Your task to perform on an android device: change keyboard looks Image 0: 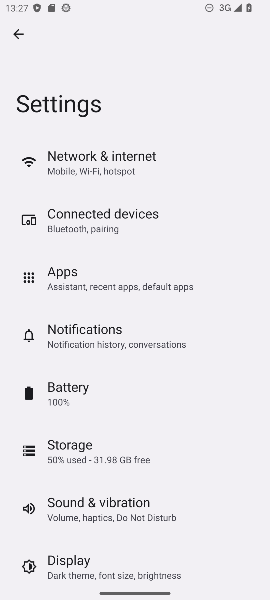
Step 0: press home button
Your task to perform on an android device: change keyboard looks Image 1: 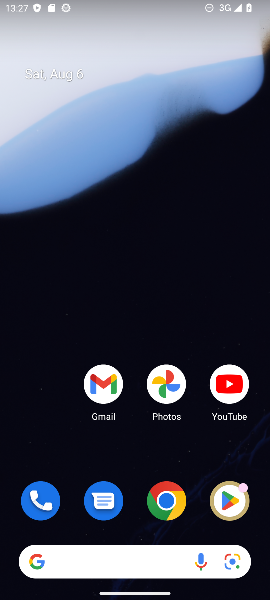
Step 1: drag from (126, 528) to (123, 86)
Your task to perform on an android device: change keyboard looks Image 2: 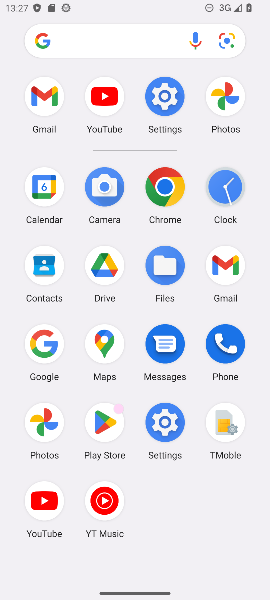
Step 2: click (172, 102)
Your task to perform on an android device: change keyboard looks Image 3: 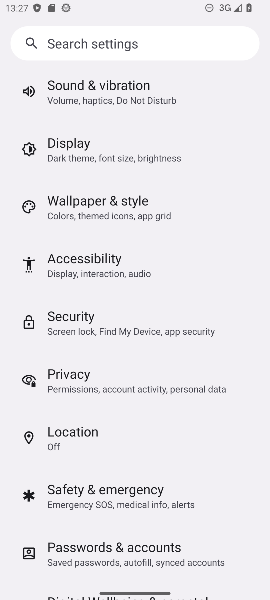
Step 3: drag from (103, 513) to (103, 172)
Your task to perform on an android device: change keyboard looks Image 4: 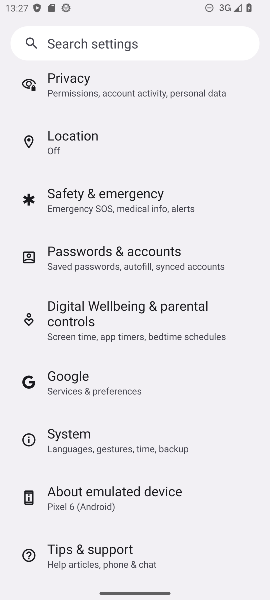
Step 4: click (81, 445)
Your task to perform on an android device: change keyboard looks Image 5: 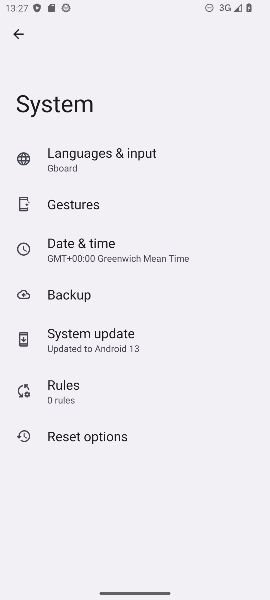
Step 5: click (67, 162)
Your task to perform on an android device: change keyboard looks Image 6: 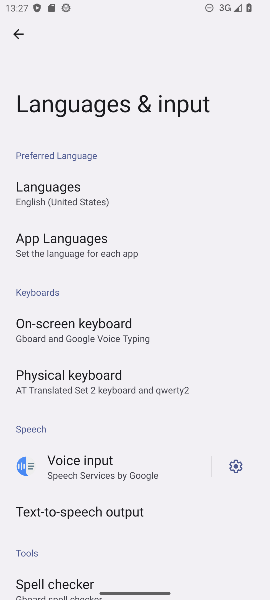
Step 6: click (71, 328)
Your task to perform on an android device: change keyboard looks Image 7: 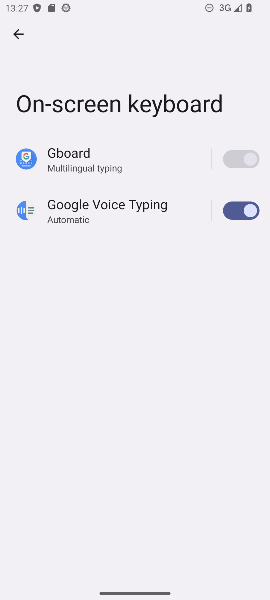
Step 7: click (94, 168)
Your task to perform on an android device: change keyboard looks Image 8: 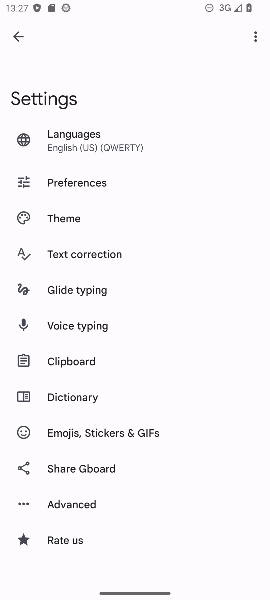
Step 8: click (72, 220)
Your task to perform on an android device: change keyboard looks Image 9: 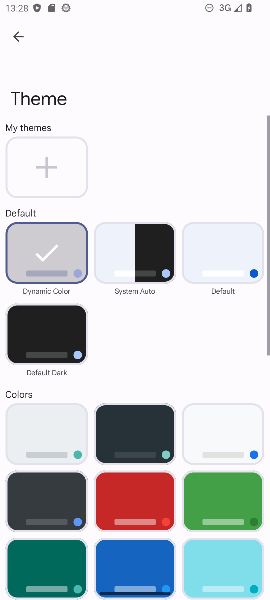
Step 9: click (125, 244)
Your task to perform on an android device: change keyboard looks Image 10: 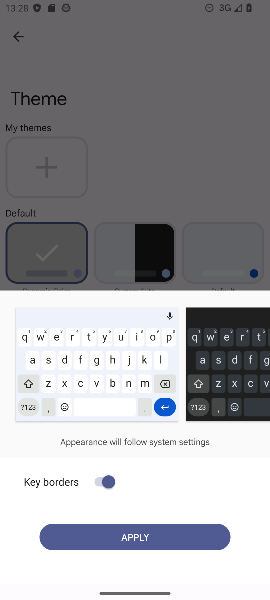
Step 10: click (135, 543)
Your task to perform on an android device: change keyboard looks Image 11: 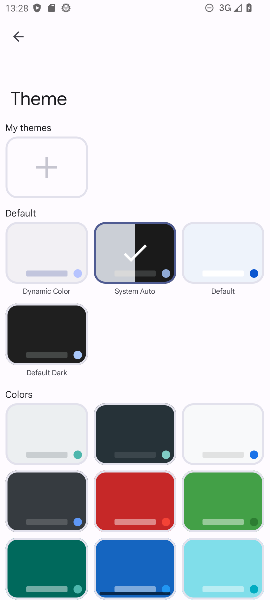
Step 11: task complete